Your task to perform on an android device: turn off location Image 0: 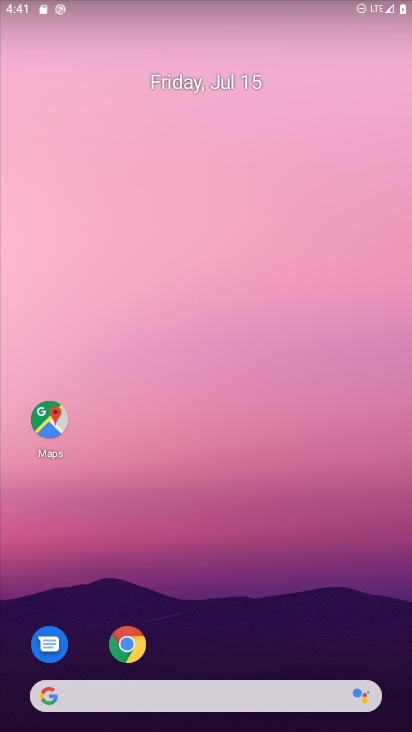
Step 0: drag from (231, 648) to (198, 321)
Your task to perform on an android device: turn off location Image 1: 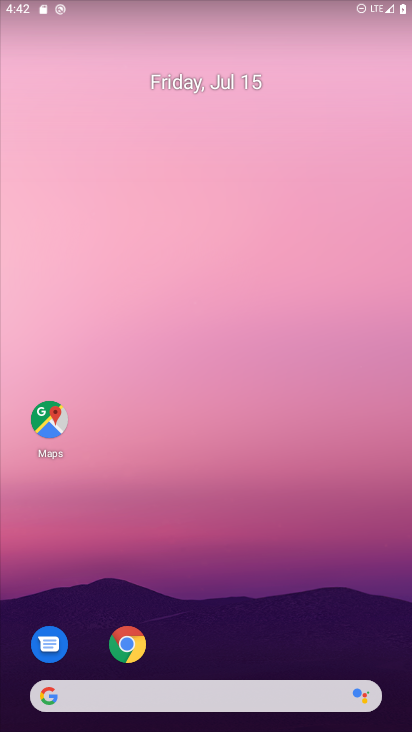
Step 1: drag from (193, 625) to (197, 105)
Your task to perform on an android device: turn off location Image 2: 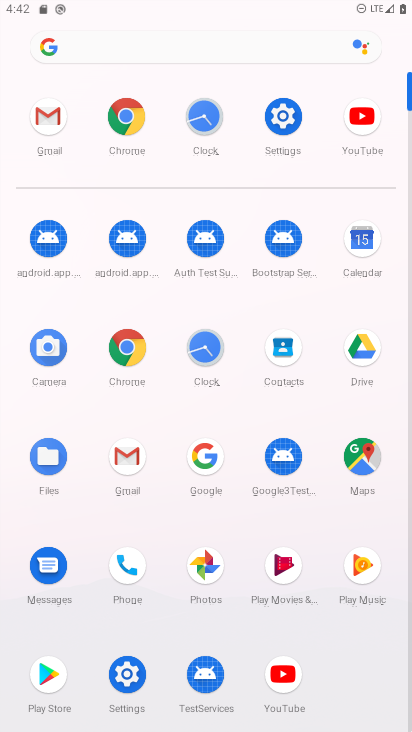
Step 2: click (283, 119)
Your task to perform on an android device: turn off location Image 3: 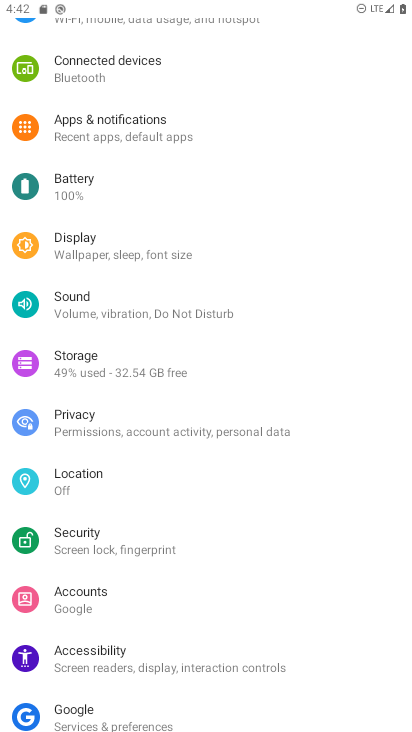
Step 3: click (133, 478)
Your task to perform on an android device: turn off location Image 4: 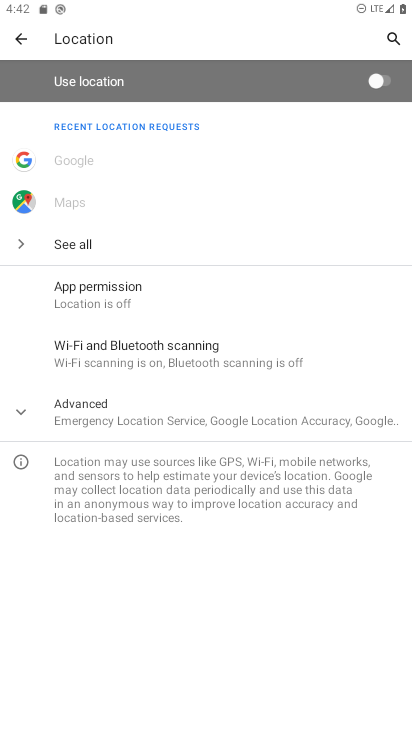
Step 4: click (372, 84)
Your task to perform on an android device: turn off location Image 5: 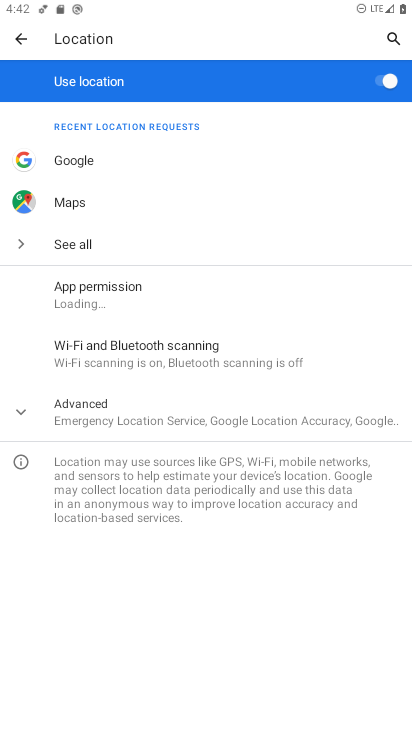
Step 5: task complete